Your task to perform on an android device: set the stopwatch Image 0: 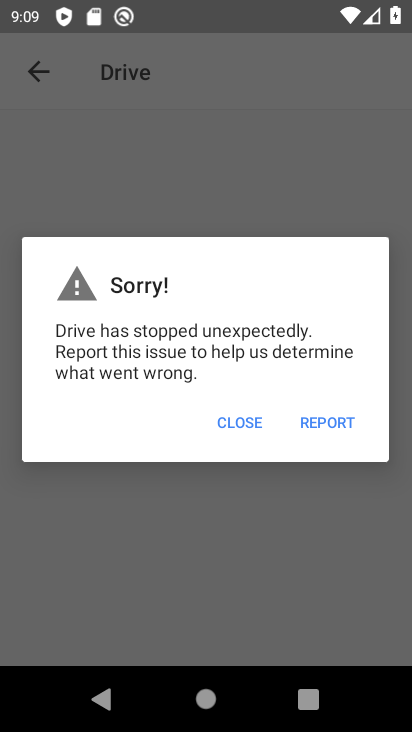
Step 0: press home button
Your task to perform on an android device: set the stopwatch Image 1: 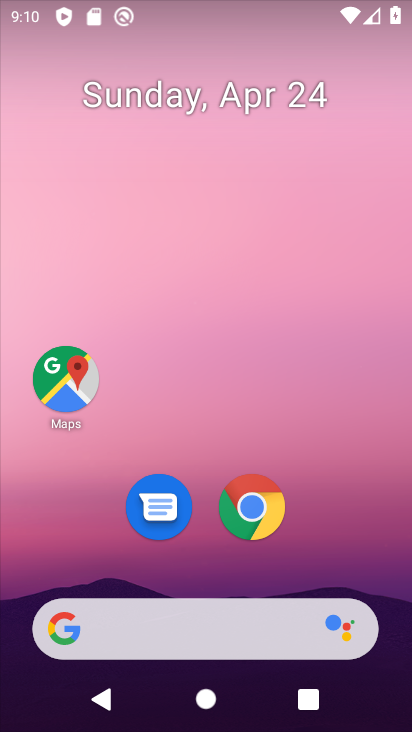
Step 1: drag from (372, 399) to (405, 10)
Your task to perform on an android device: set the stopwatch Image 2: 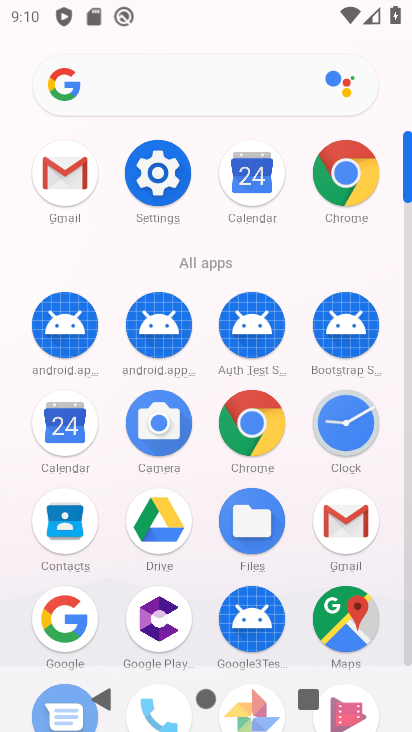
Step 2: click (345, 440)
Your task to perform on an android device: set the stopwatch Image 3: 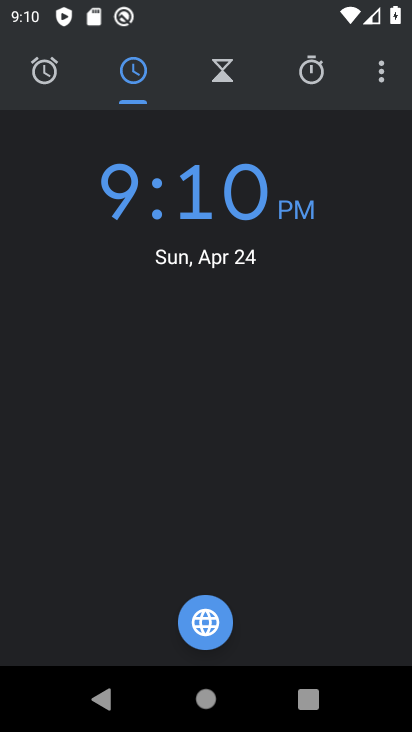
Step 3: click (316, 54)
Your task to perform on an android device: set the stopwatch Image 4: 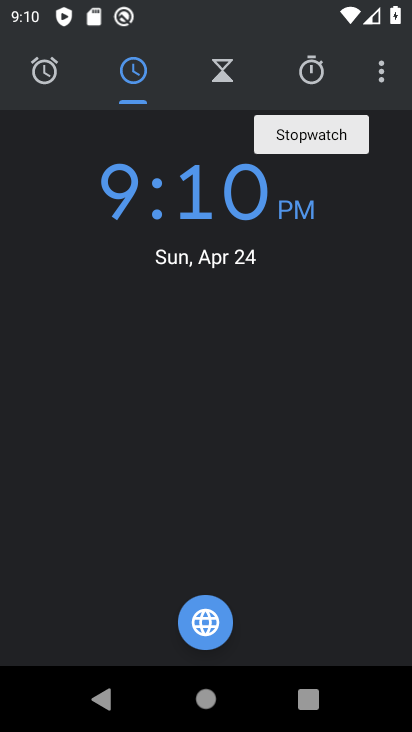
Step 4: click (316, 54)
Your task to perform on an android device: set the stopwatch Image 5: 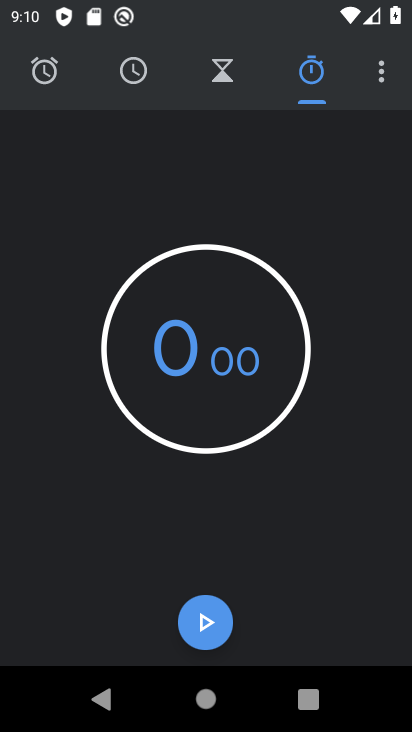
Step 5: click (207, 619)
Your task to perform on an android device: set the stopwatch Image 6: 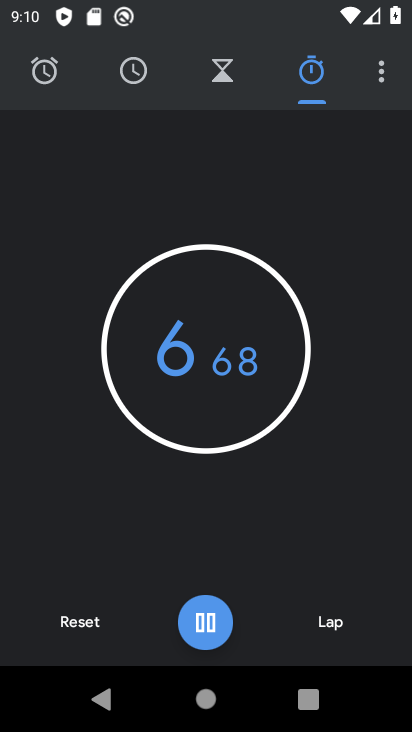
Step 6: task complete